Your task to perform on an android device: Open Google Maps Image 0: 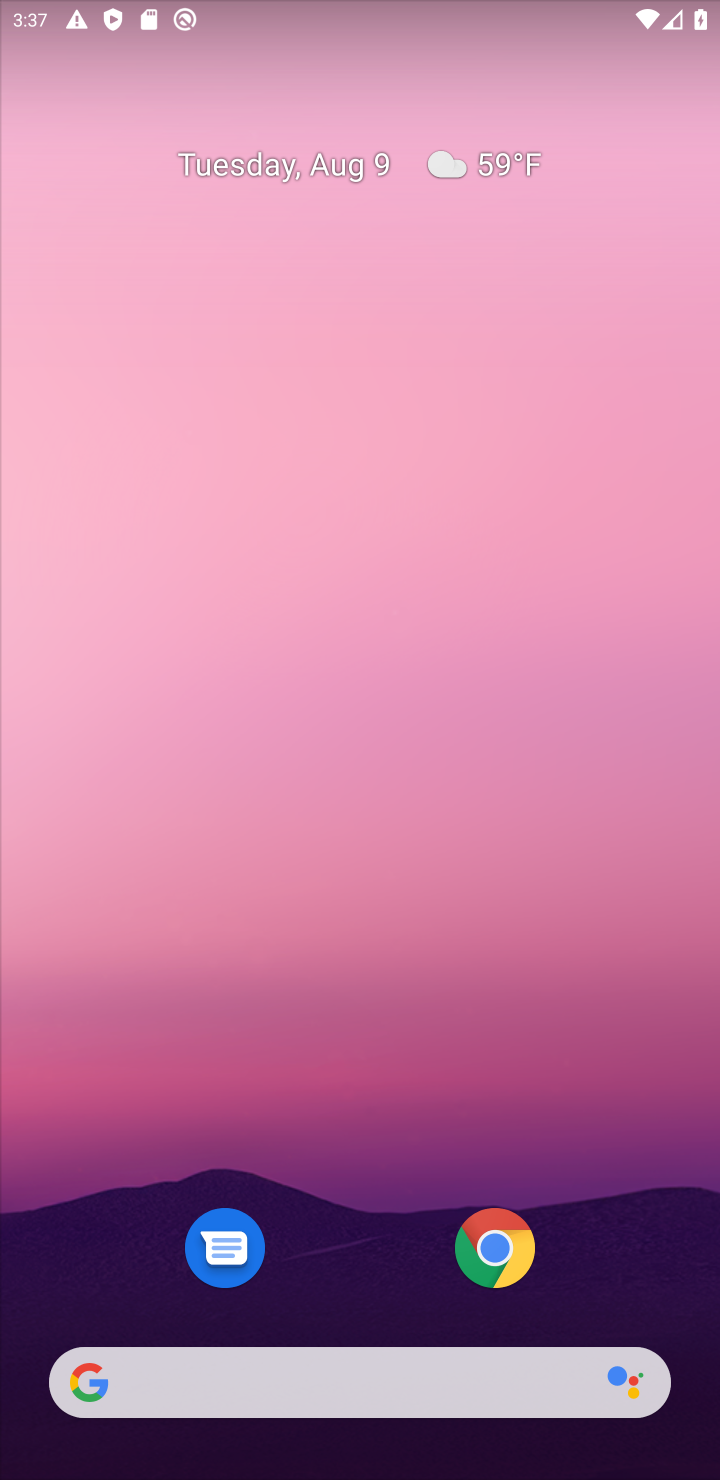
Step 0: drag from (293, 923) to (201, 536)
Your task to perform on an android device: Open Google Maps Image 1: 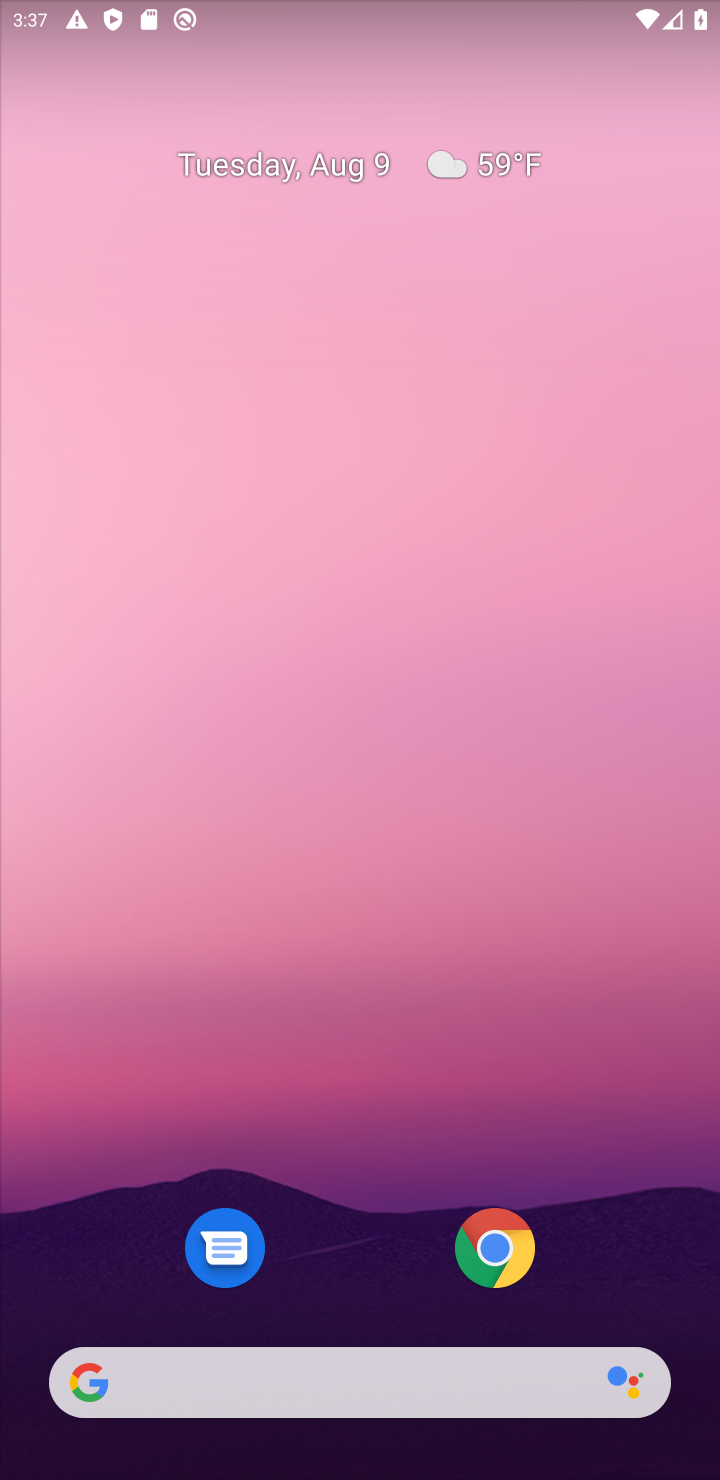
Step 1: drag from (360, 1237) to (38, 228)
Your task to perform on an android device: Open Google Maps Image 2: 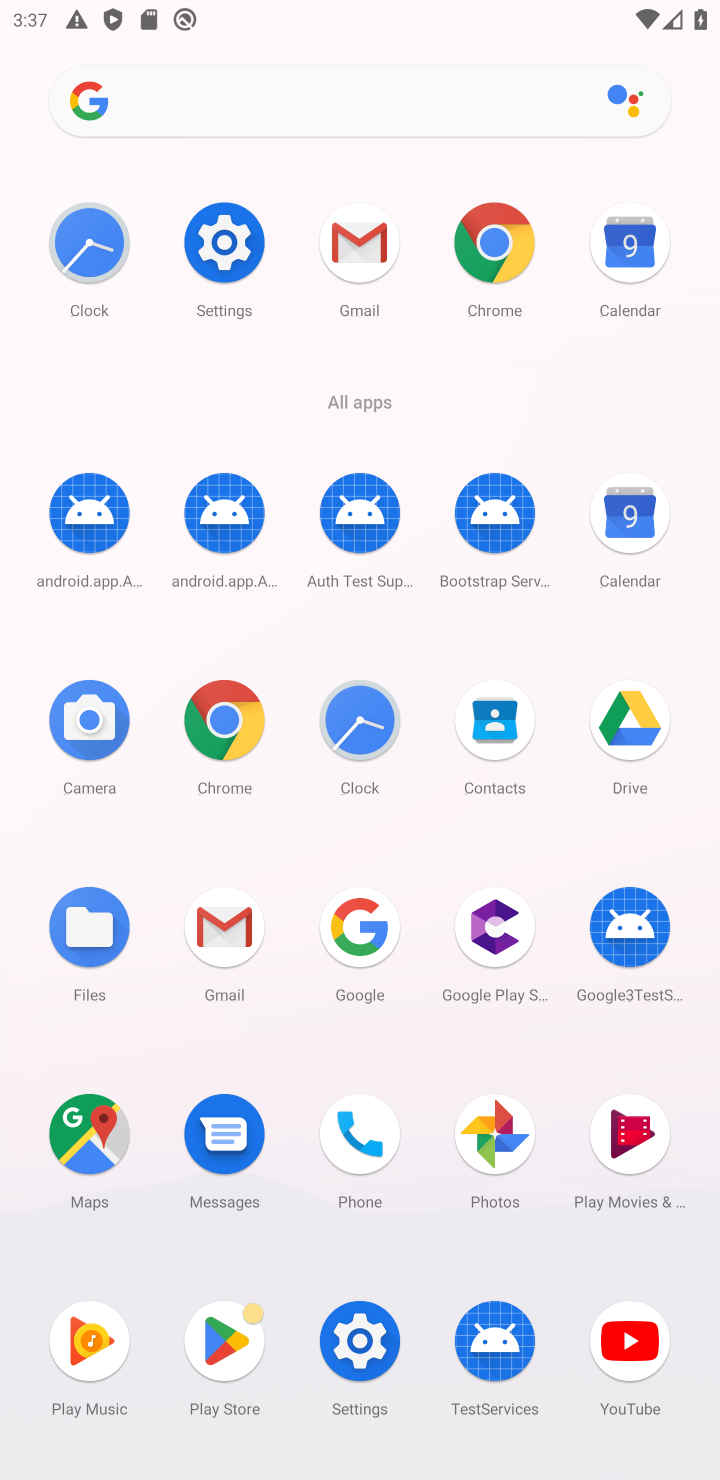
Step 2: click (92, 1149)
Your task to perform on an android device: Open Google Maps Image 3: 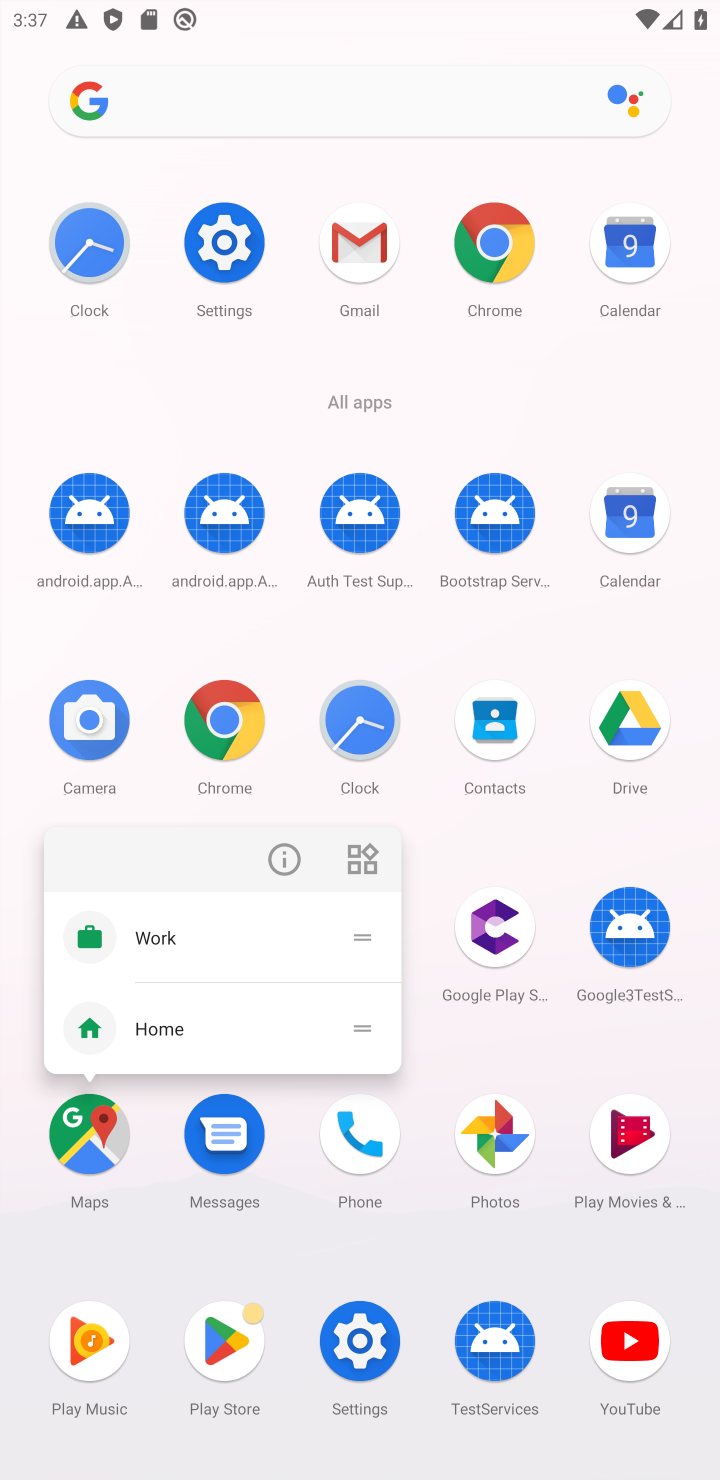
Step 3: click (92, 1149)
Your task to perform on an android device: Open Google Maps Image 4: 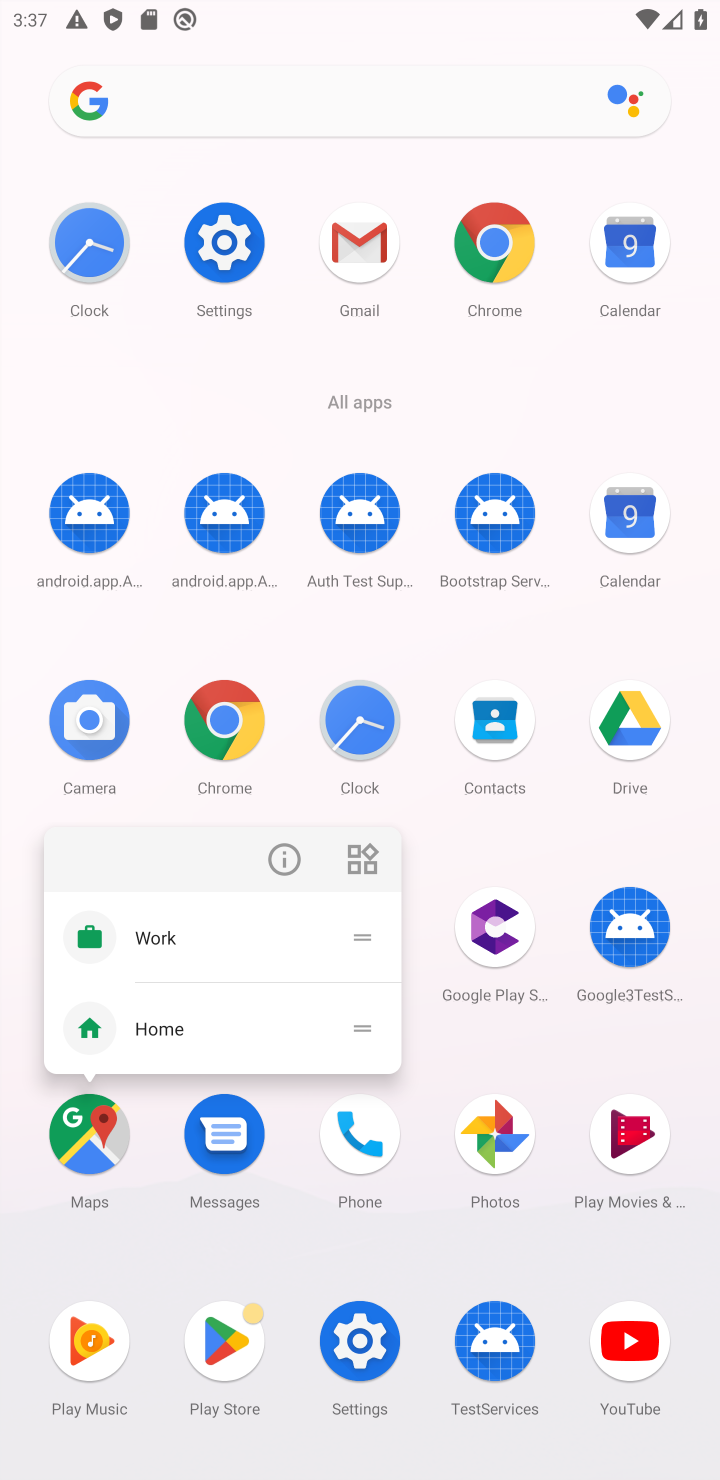
Step 4: click (161, 1252)
Your task to perform on an android device: Open Google Maps Image 5: 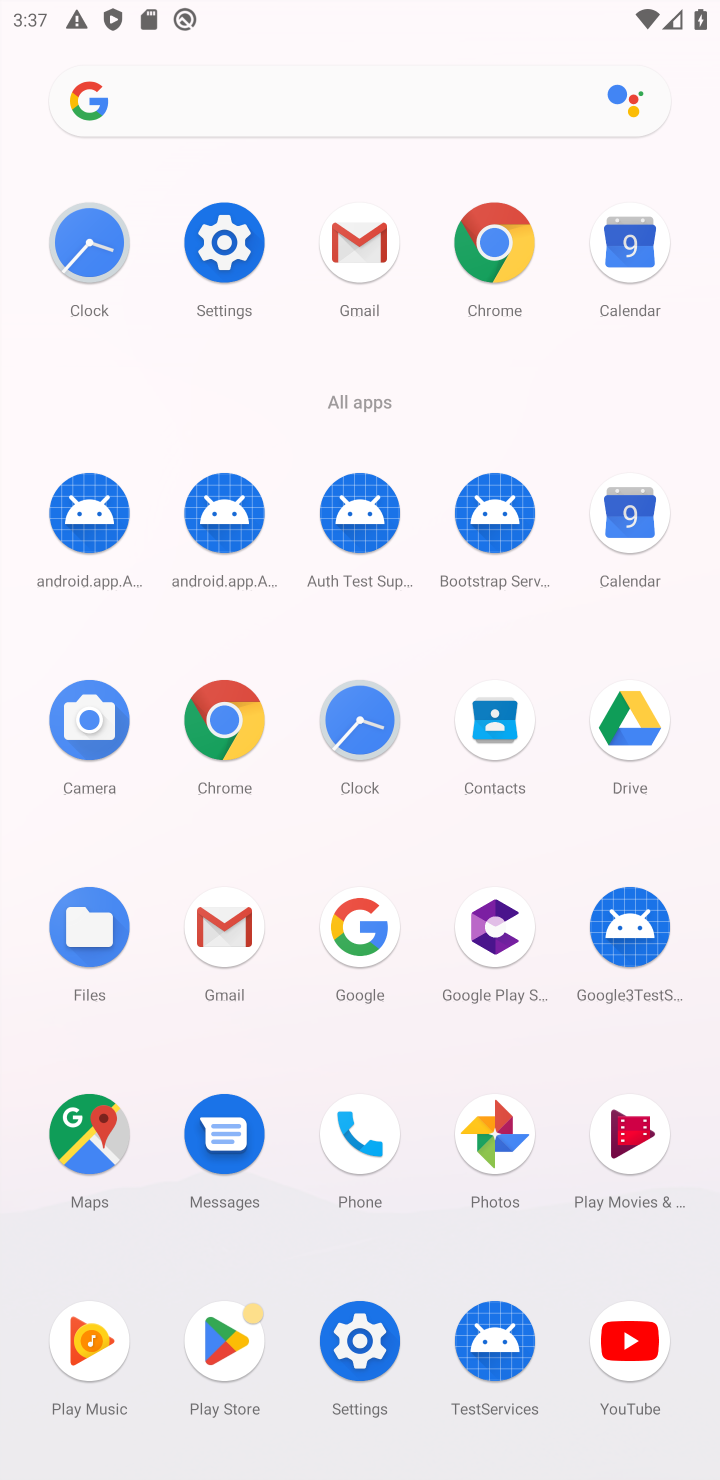
Step 5: click (93, 1132)
Your task to perform on an android device: Open Google Maps Image 6: 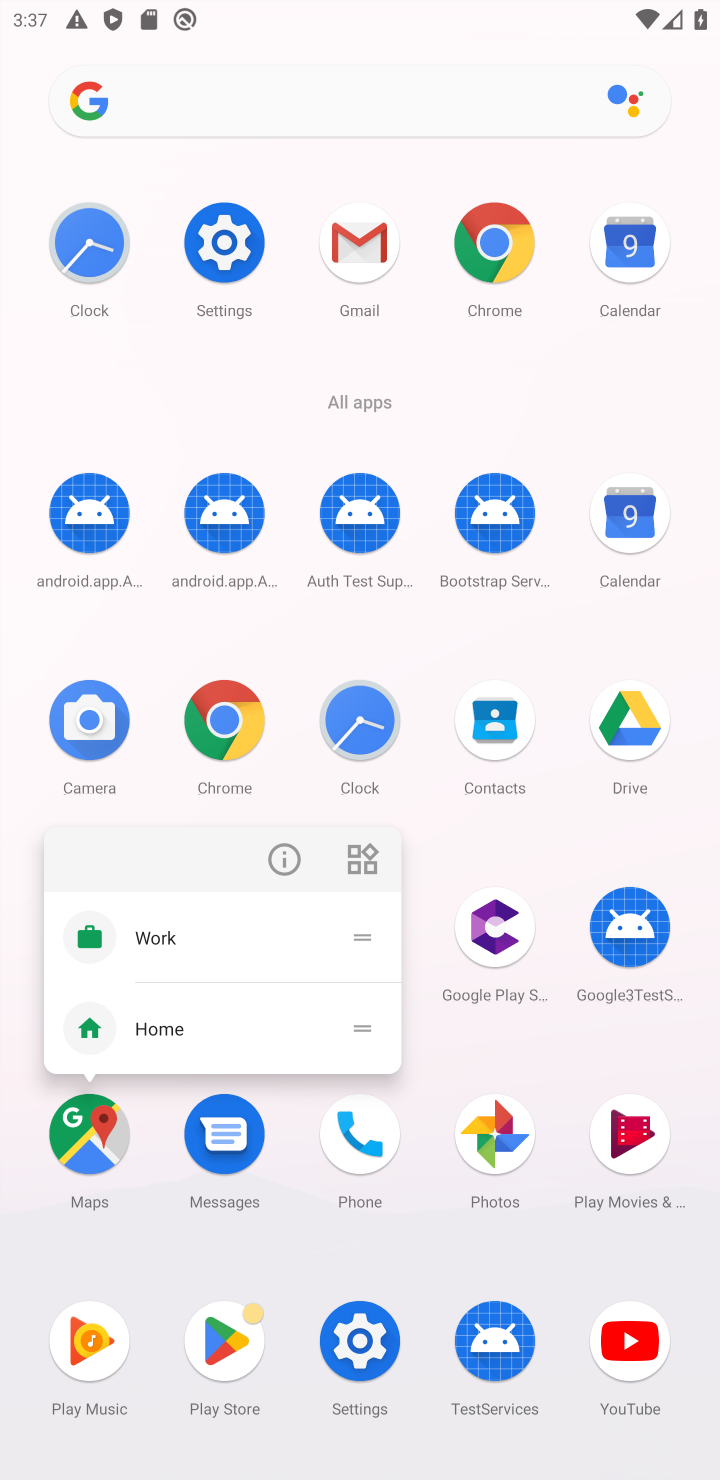
Step 6: click (124, 1249)
Your task to perform on an android device: Open Google Maps Image 7: 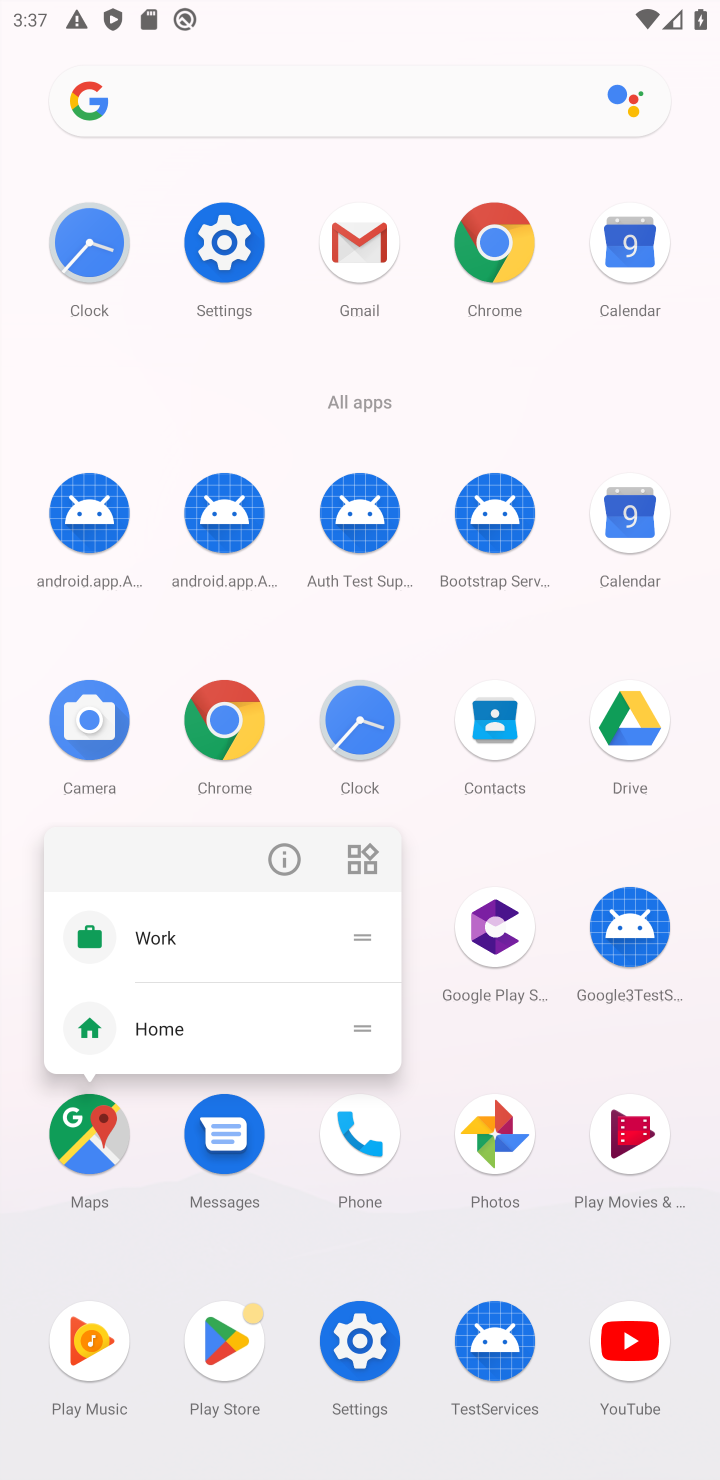
Step 7: click (88, 1142)
Your task to perform on an android device: Open Google Maps Image 8: 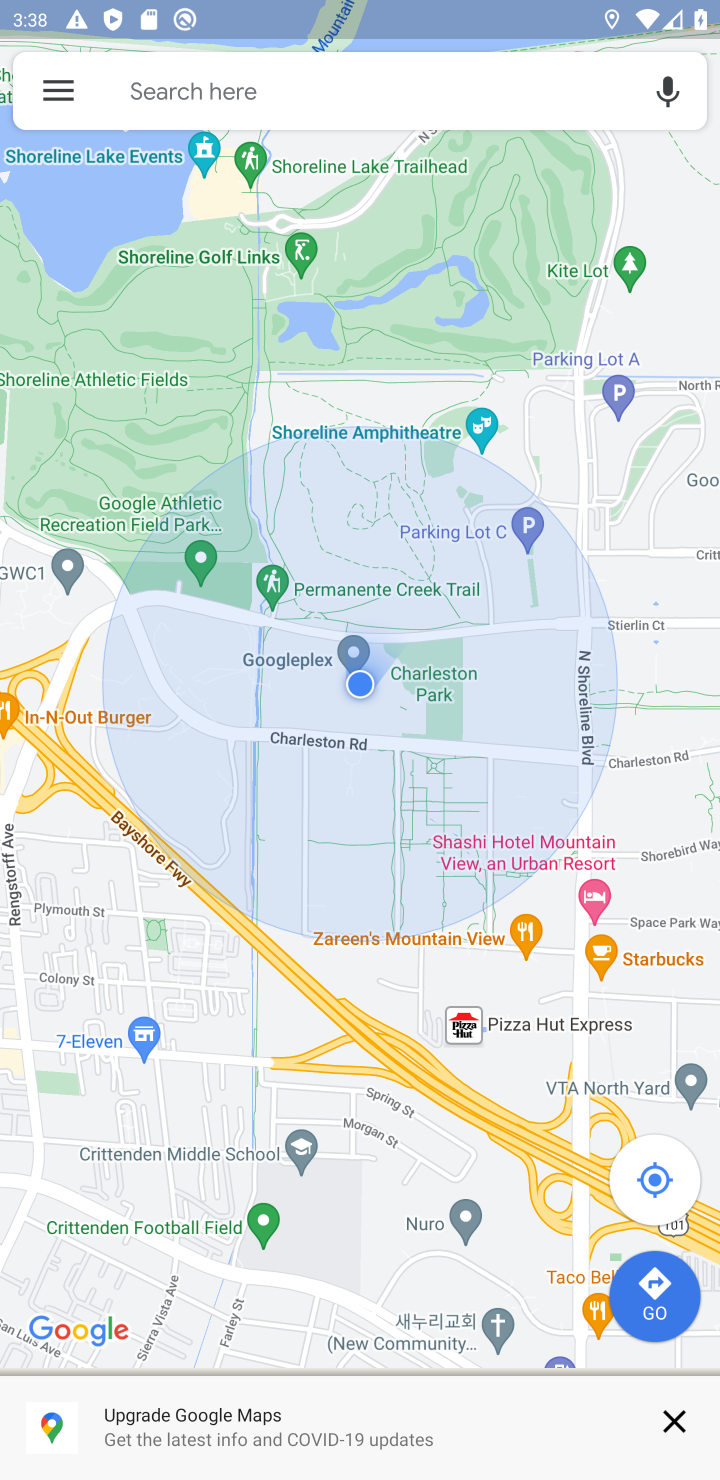
Step 8: task complete